Your task to perform on an android device: toggle airplane mode Image 0: 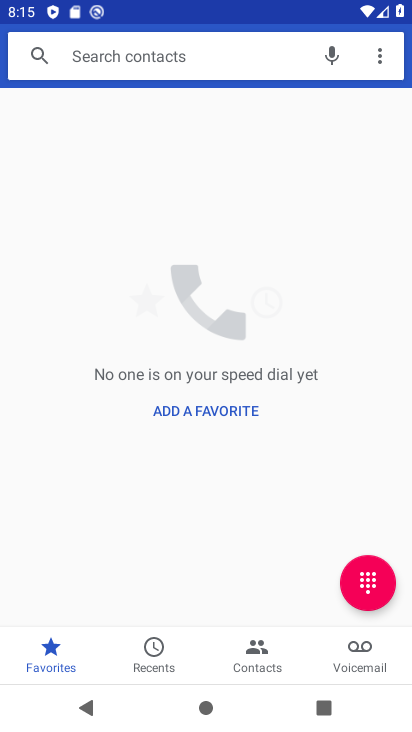
Step 0: press home button
Your task to perform on an android device: toggle airplane mode Image 1: 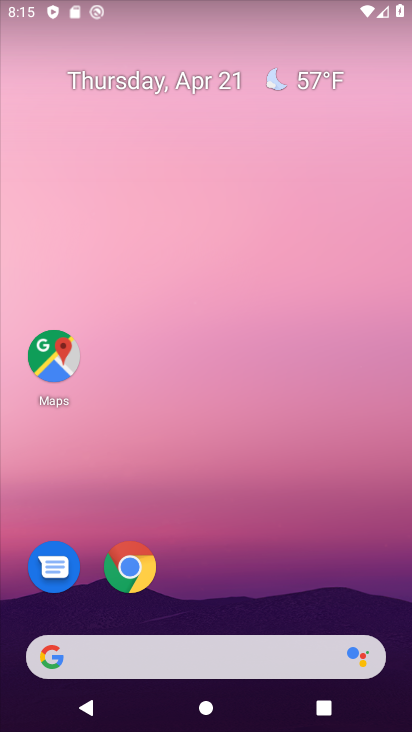
Step 1: drag from (219, 614) to (210, 76)
Your task to perform on an android device: toggle airplane mode Image 2: 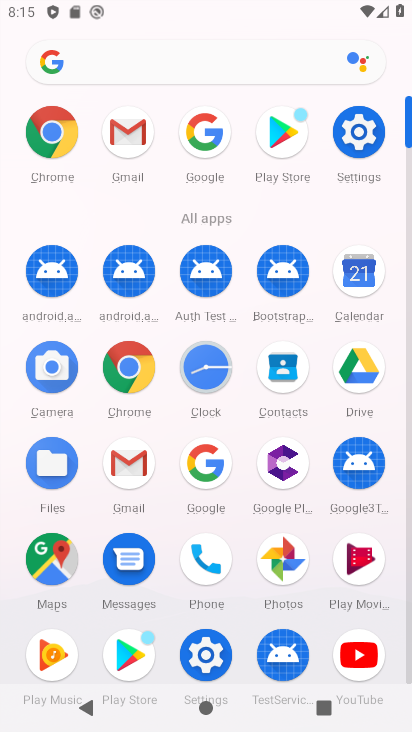
Step 2: click (355, 148)
Your task to perform on an android device: toggle airplane mode Image 3: 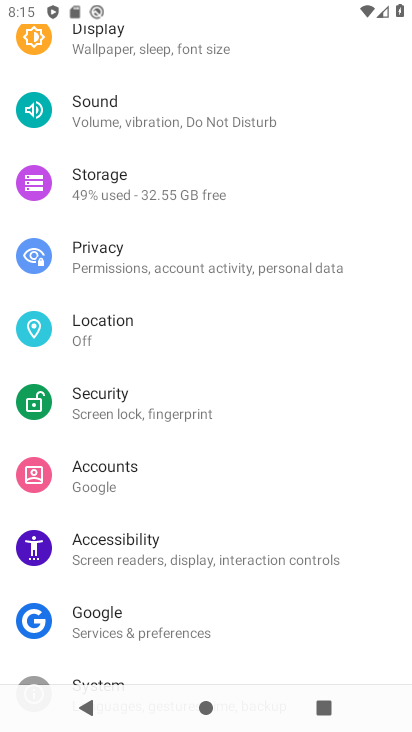
Step 3: drag from (174, 168) to (178, 581)
Your task to perform on an android device: toggle airplane mode Image 4: 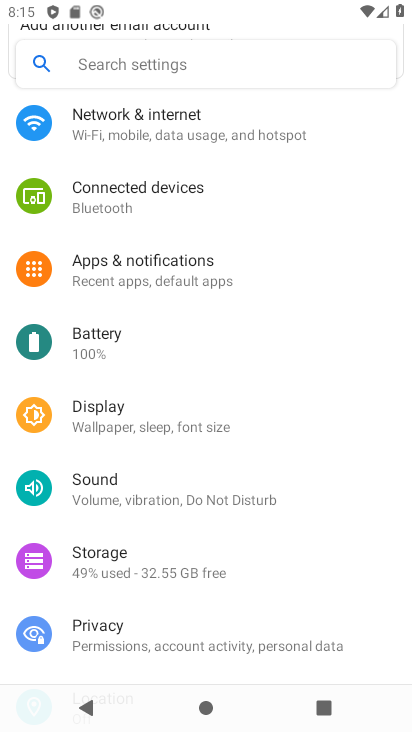
Step 4: drag from (182, 236) to (202, 579)
Your task to perform on an android device: toggle airplane mode Image 5: 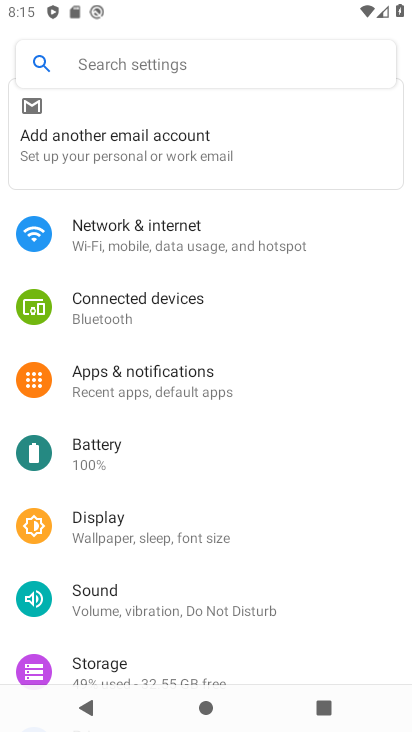
Step 5: click (187, 221)
Your task to perform on an android device: toggle airplane mode Image 6: 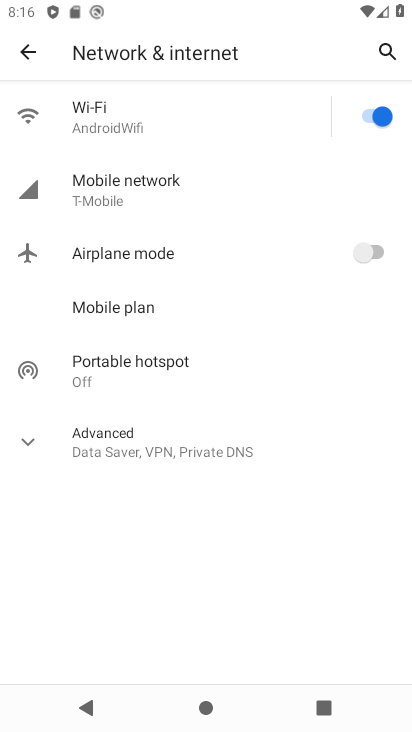
Step 6: click (379, 245)
Your task to perform on an android device: toggle airplane mode Image 7: 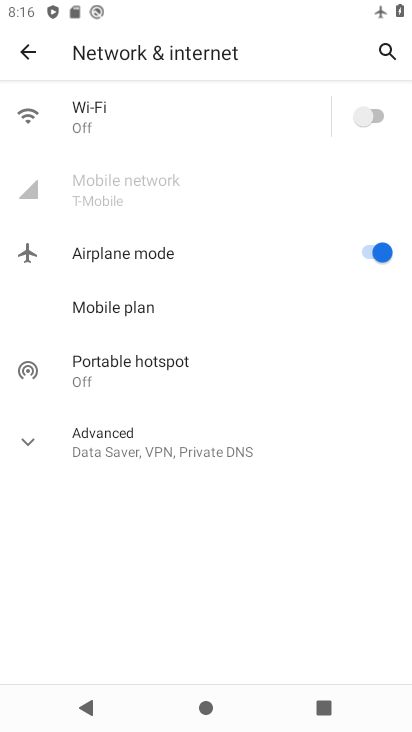
Step 7: task complete